Your task to perform on an android device: Clear the shopping cart on walmart.com. Search for dell alienware on walmart.com, select the first entry, and add it to the cart. Image 0: 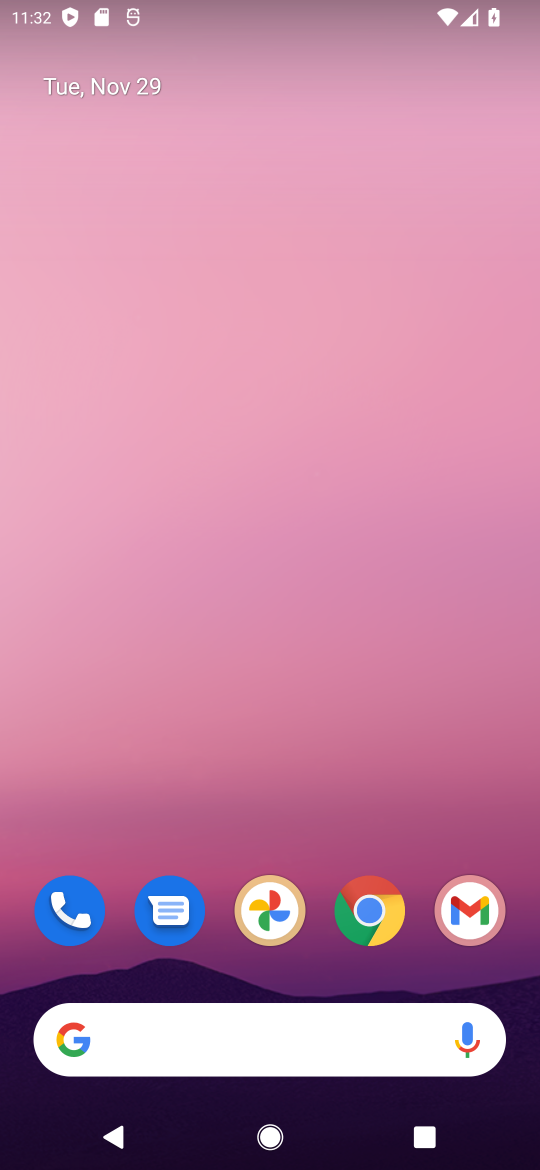
Step 0: click (366, 911)
Your task to perform on an android device: Clear the shopping cart on walmart.com. Search for dell alienware on walmart.com, select the first entry, and add it to the cart. Image 1: 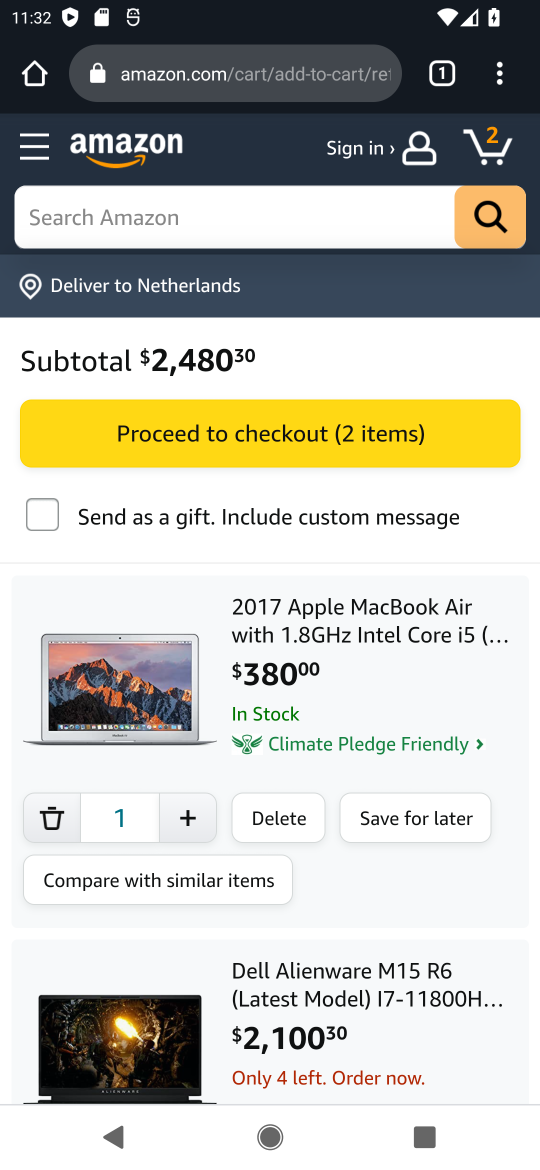
Step 1: click (187, 73)
Your task to perform on an android device: Clear the shopping cart on walmart.com. Search for dell alienware on walmart.com, select the first entry, and add it to the cart. Image 2: 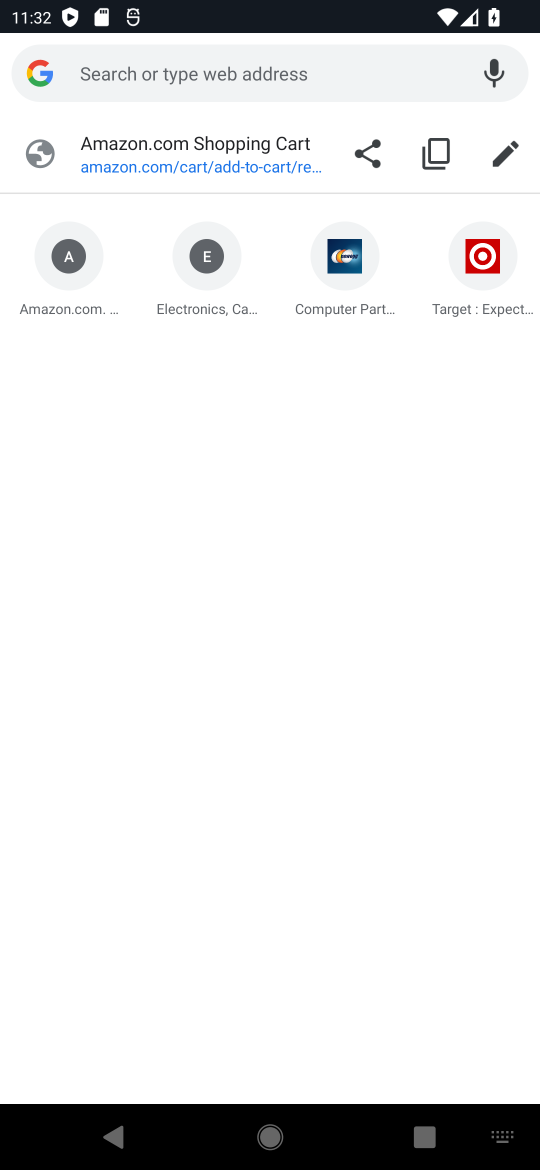
Step 2: type "walmart.com"
Your task to perform on an android device: Clear the shopping cart on walmart.com. Search for dell alienware on walmart.com, select the first entry, and add it to the cart. Image 3: 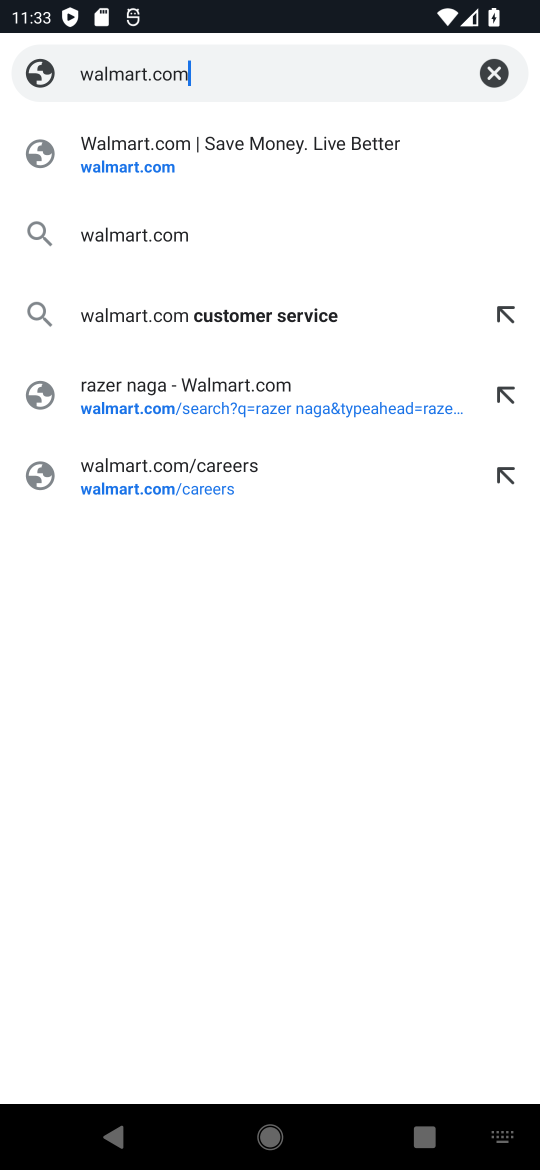
Step 3: click (142, 168)
Your task to perform on an android device: Clear the shopping cart on walmart.com. Search for dell alienware on walmart.com, select the first entry, and add it to the cart. Image 4: 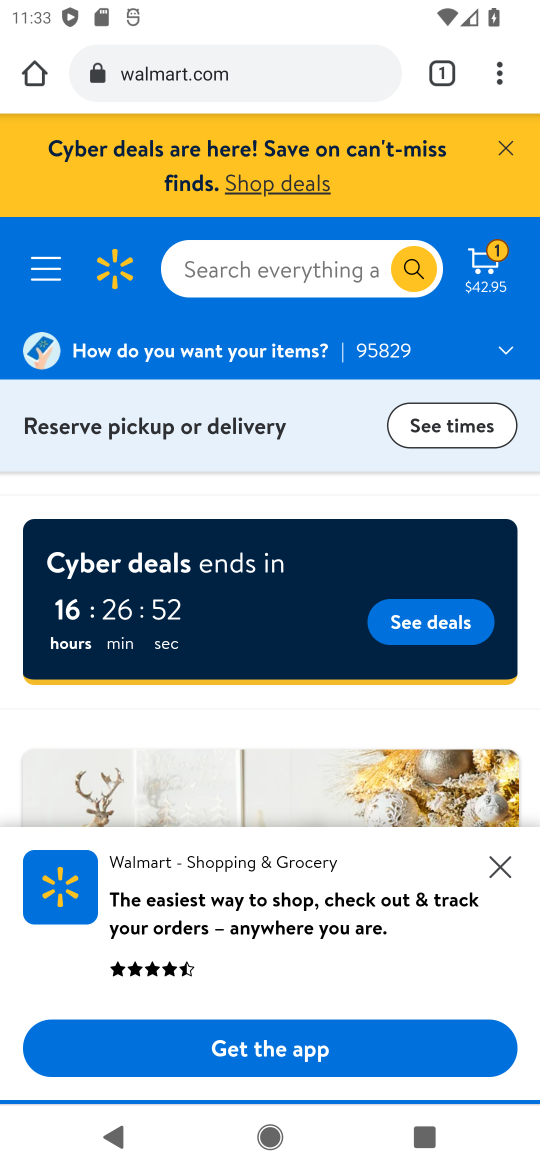
Step 4: click (492, 264)
Your task to perform on an android device: Clear the shopping cart on walmart.com. Search for dell alienware on walmart.com, select the first entry, and add it to the cart. Image 5: 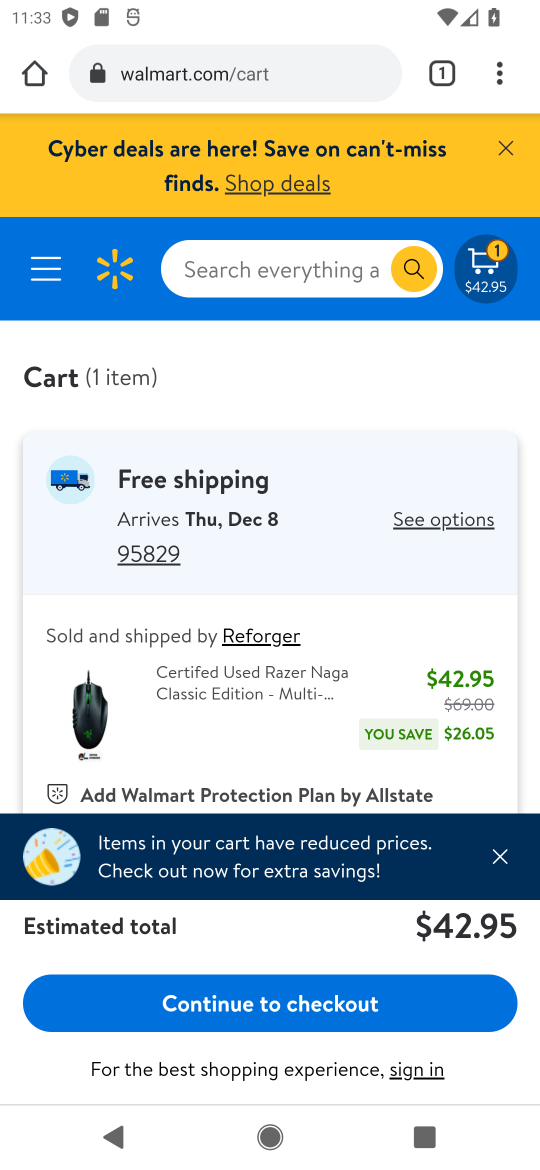
Step 5: drag from (289, 574) to (356, 184)
Your task to perform on an android device: Clear the shopping cart on walmart.com. Search for dell alienware on walmart.com, select the first entry, and add it to the cart. Image 6: 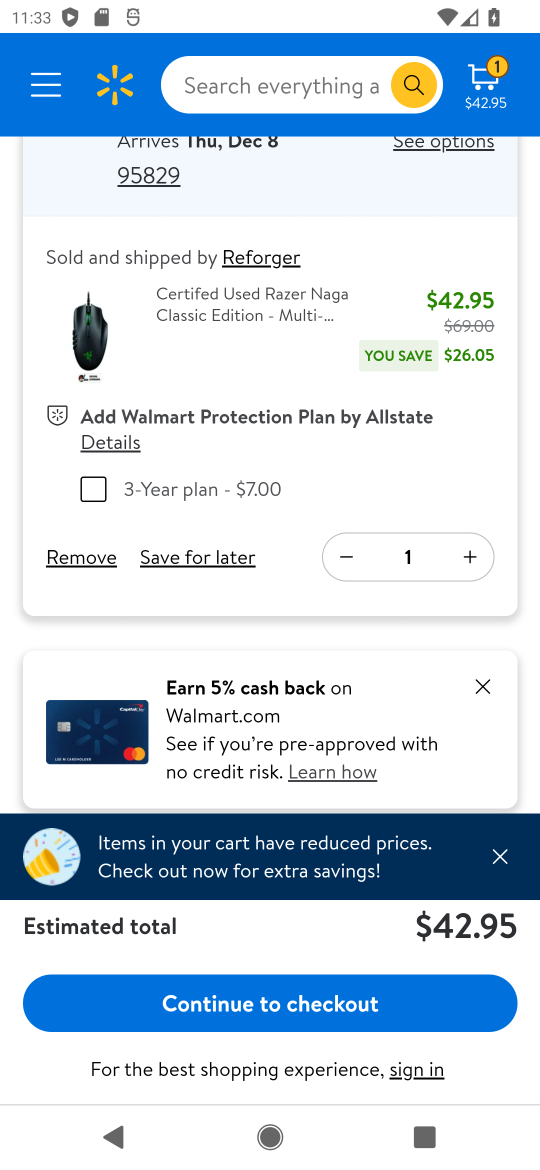
Step 6: click (73, 557)
Your task to perform on an android device: Clear the shopping cart on walmart.com. Search for dell alienware on walmart.com, select the first entry, and add it to the cart. Image 7: 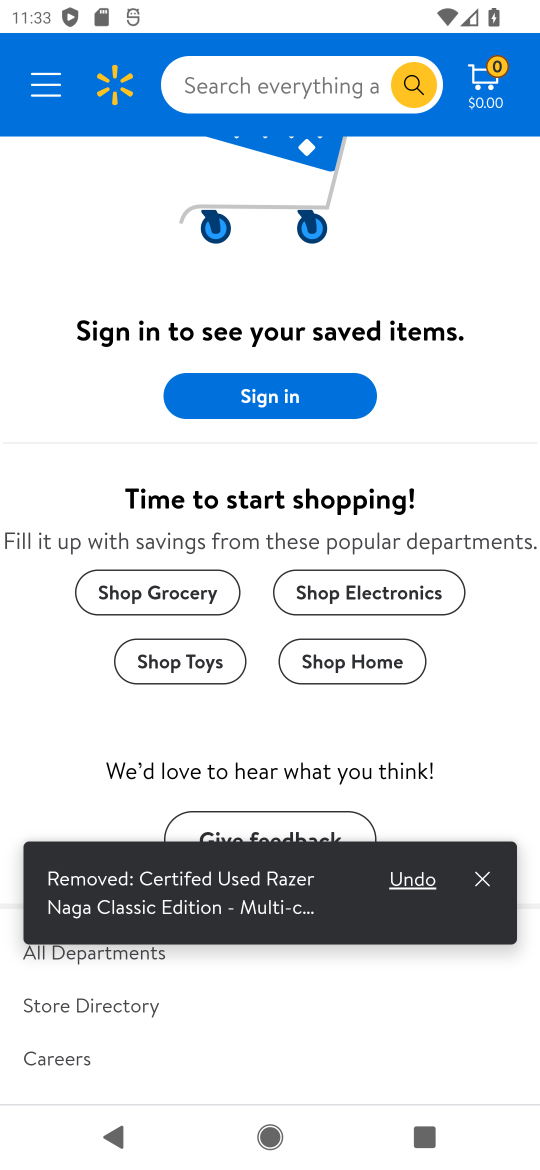
Step 7: drag from (456, 288) to (402, 578)
Your task to perform on an android device: Clear the shopping cart on walmart.com. Search for dell alienware on walmart.com, select the first entry, and add it to the cart. Image 8: 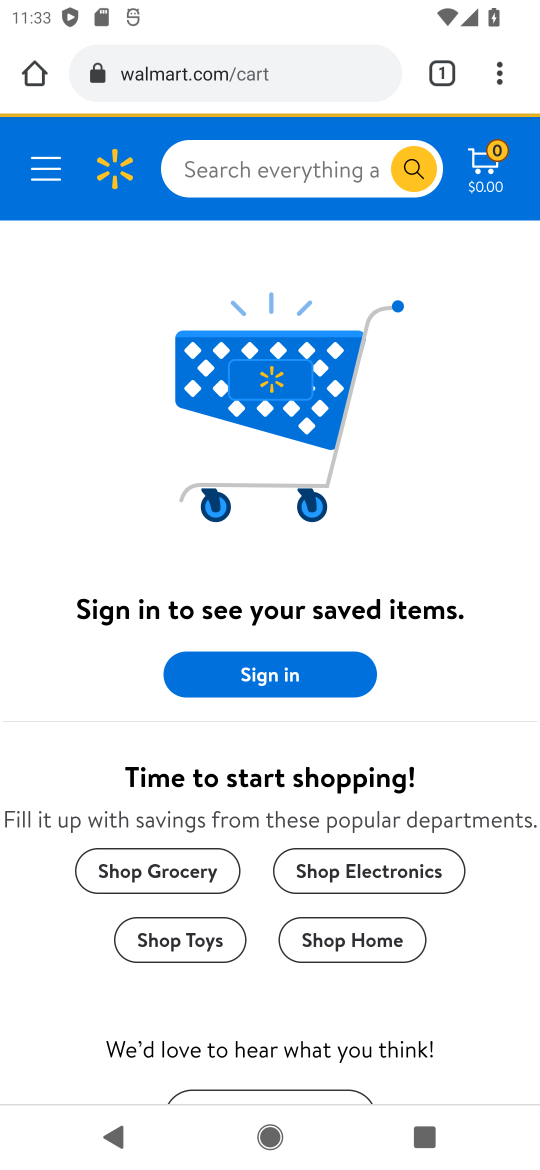
Step 8: click (237, 162)
Your task to perform on an android device: Clear the shopping cart on walmart.com. Search for dell alienware on walmart.com, select the first entry, and add it to the cart. Image 9: 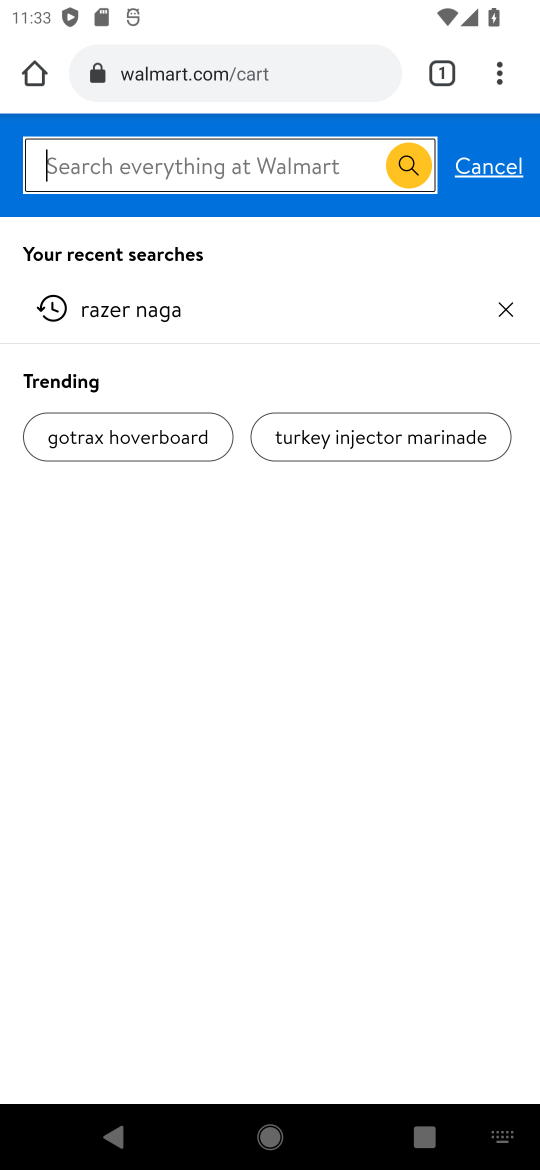
Step 9: type "dell alienware"
Your task to perform on an android device: Clear the shopping cart on walmart.com. Search for dell alienware on walmart.com, select the first entry, and add it to the cart. Image 10: 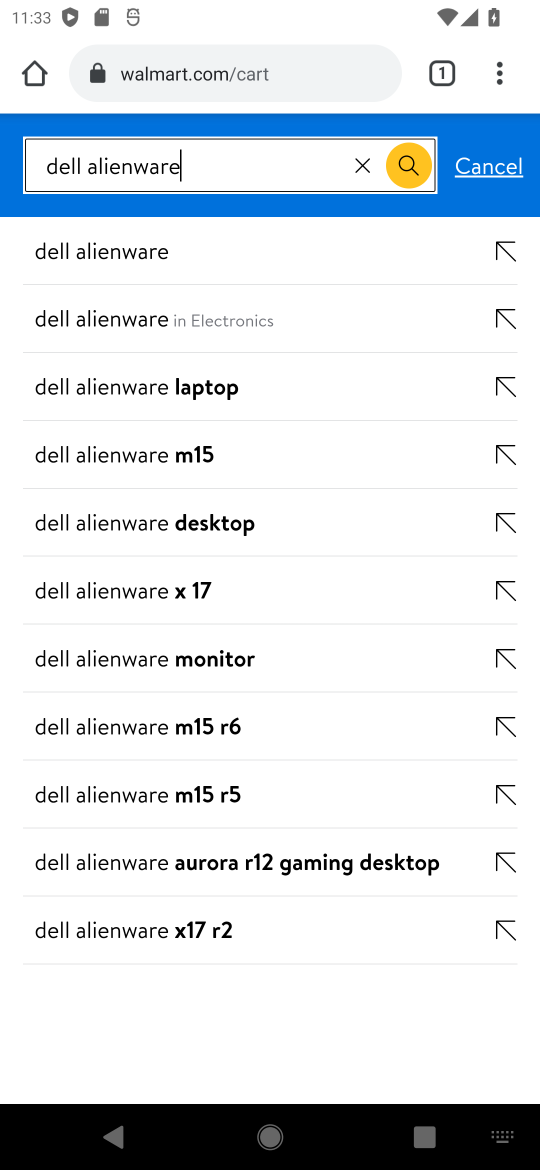
Step 10: click (157, 253)
Your task to perform on an android device: Clear the shopping cart on walmart.com. Search for dell alienware on walmart.com, select the first entry, and add it to the cart. Image 11: 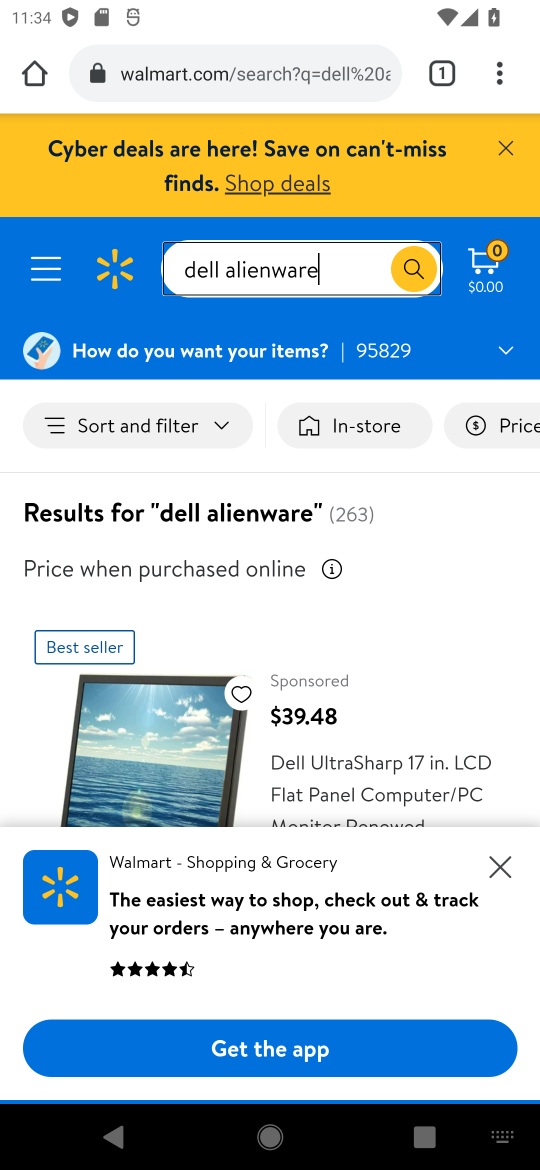
Step 11: task complete